Your task to perform on an android device: turn off location Image 0: 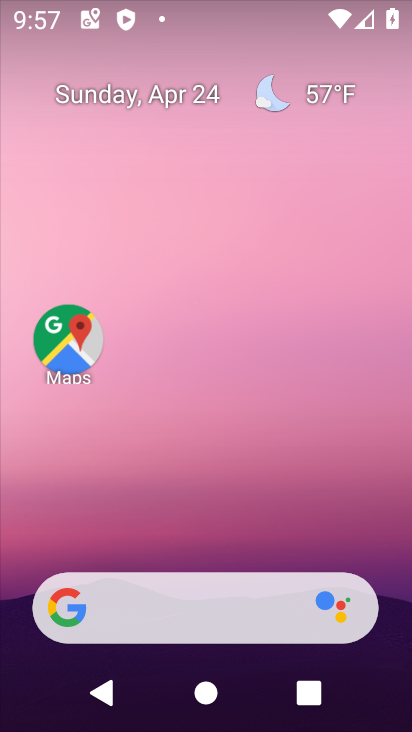
Step 0: drag from (218, 609) to (221, 150)
Your task to perform on an android device: turn off location Image 1: 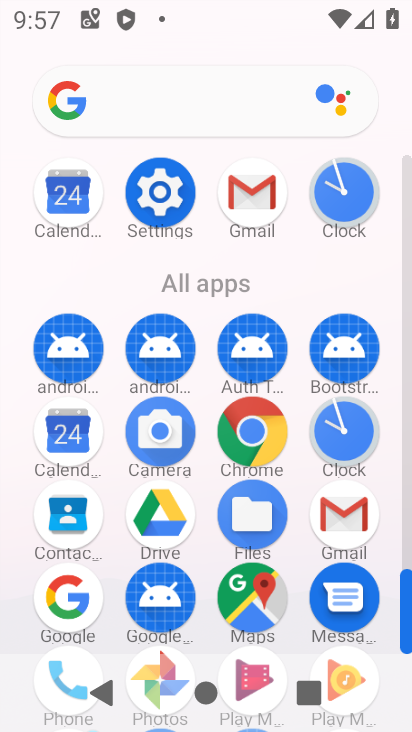
Step 1: click (160, 195)
Your task to perform on an android device: turn off location Image 2: 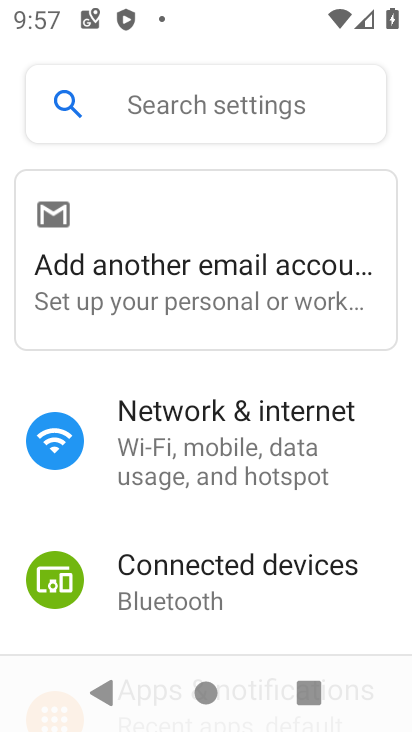
Step 2: drag from (242, 629) to (243, 293)
Your task to perform on an android device: turn off location Image 3: 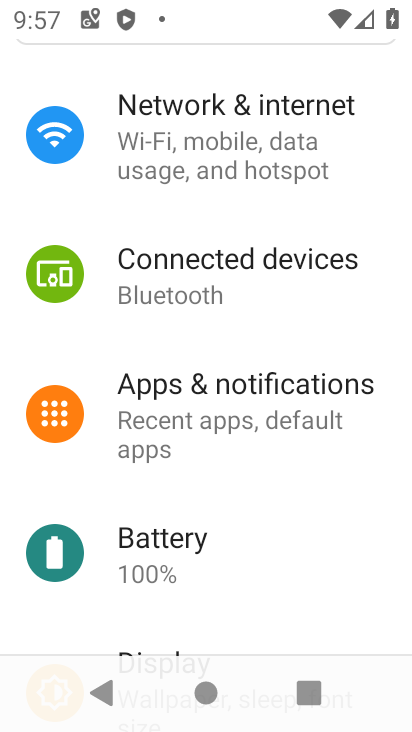
Step 3: drag from (236, 626) to (264, 265)
Your task to perform on an android device: turn off location Image 4: 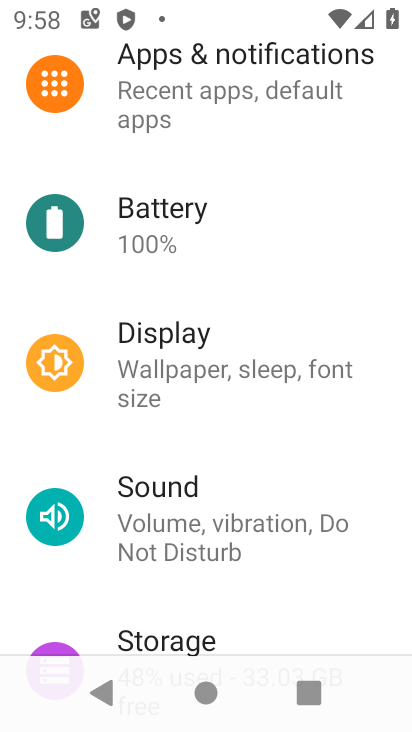
Step 4: drag from (251, 619) to (256, 234)
Your task to perform on an android device: turn off location Image 5: 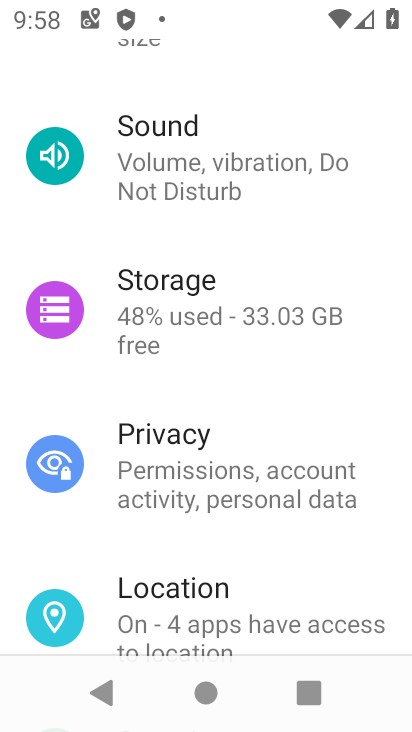
Step 5: click (180, 614)
Your task to perform on an android device: turn off location Image 6: 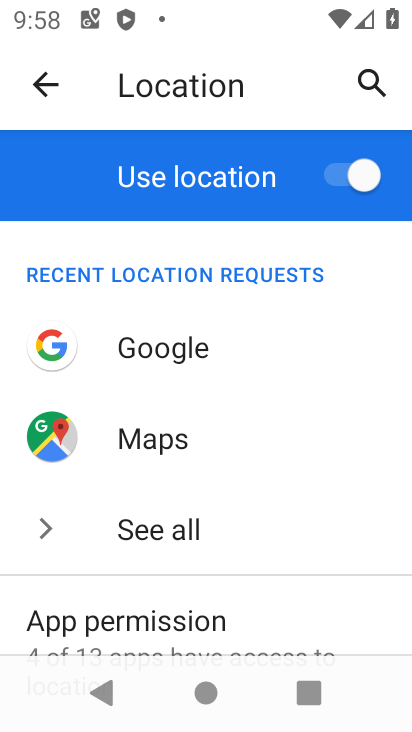
Step 6: click (332, 178)
Your task to perform on an android device: turn off location Image 7: 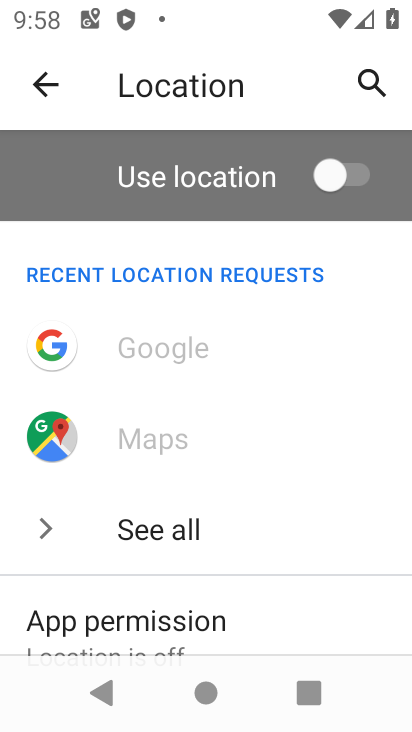
Step 7: task complete